Your task to perform on an android device: turn off priority inbox in the gmail app Image 0: 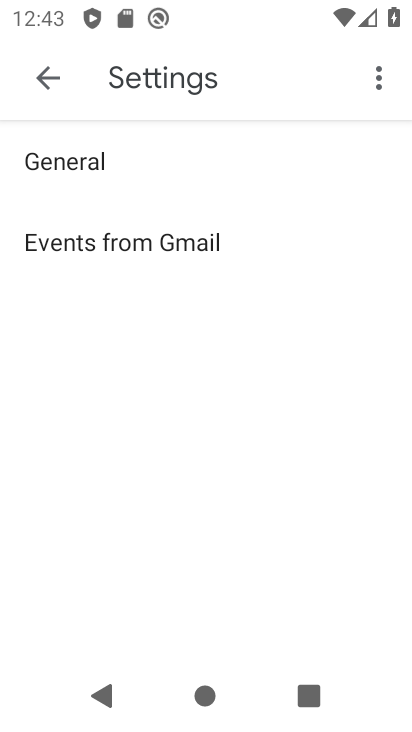
Step 0: press back button
Your task to perform on an android device: turn off priority inbox in the gmail app Image 1: 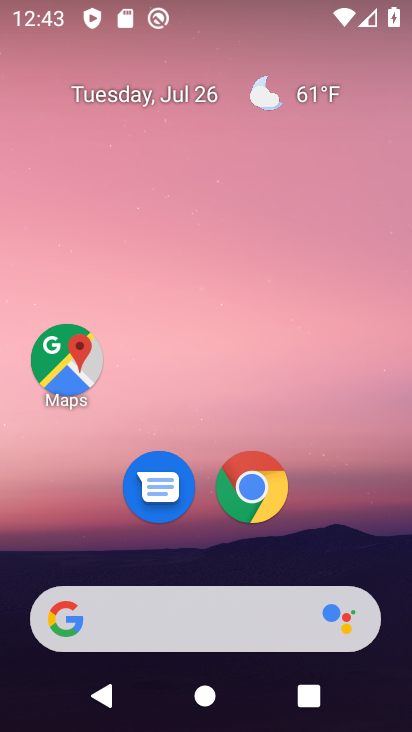
Step 1: drag from (74, 525) to (150, 32)
Your task to perform on an android device: turn off priority inbox in the gmail app Image 2: 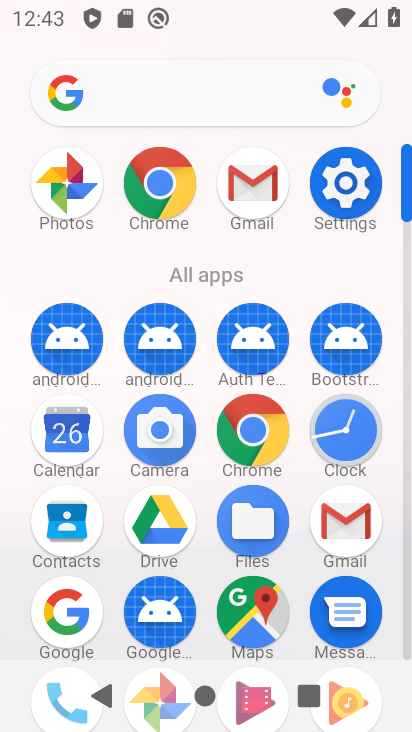
Step 2: click (270, 171)
Your task to perform on an android device: turn off priority inbox in the gmail app Image 3: 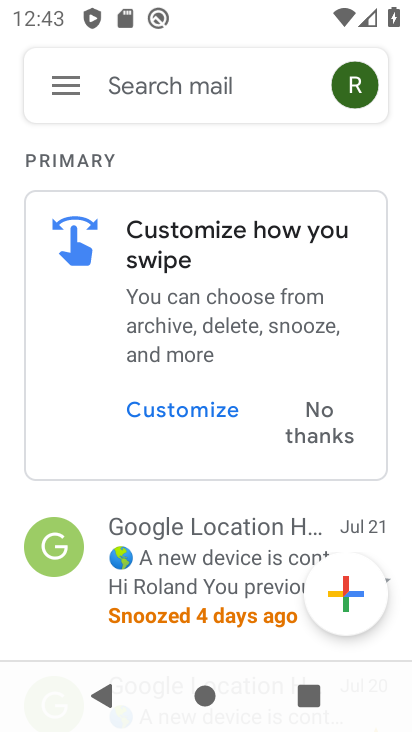
Step 3: click (77, 84)
Your task to perform on an android device: turn off priority inbox in the gmail app Image 4: 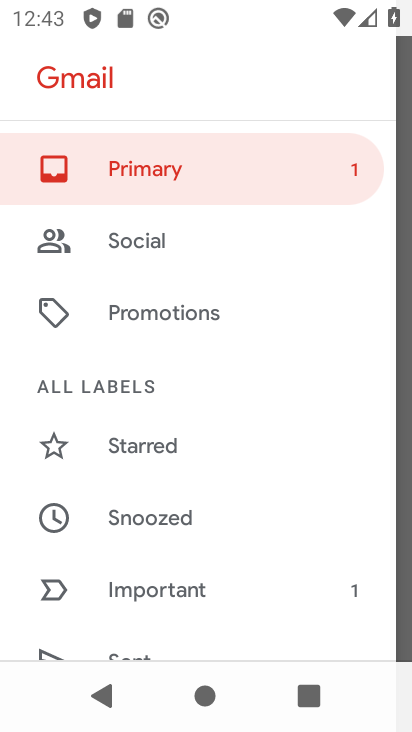
Step 4: drag from (141, 609) to (209, 2)
Your task to perform on an android device: turn off priority inbox in the gmail app Image 5: 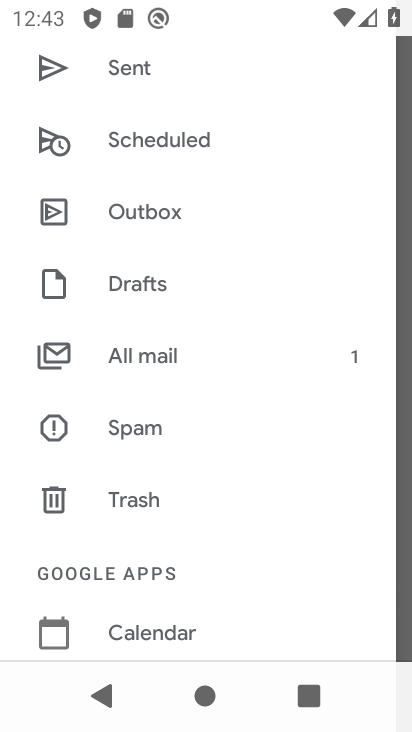
Step 5: drag from (138, 611) to (233, 68)
Your task to perform on an android device: turn off priority inbox in the gmail app Image 6: 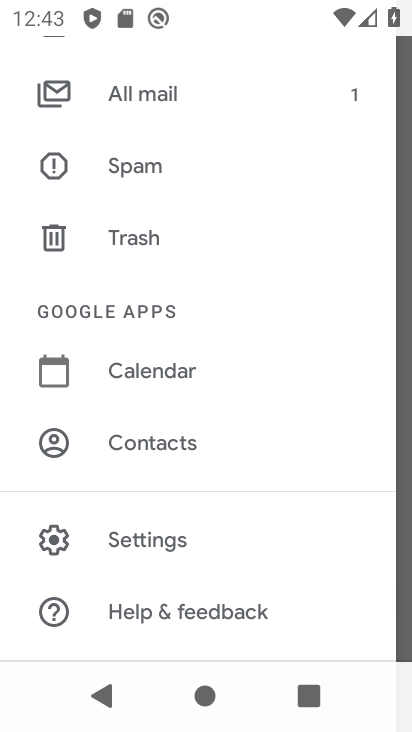
Step 6: click (183, 528)
Your task to perform on an android device: turn off priority inbox in the gmail app Image 7: 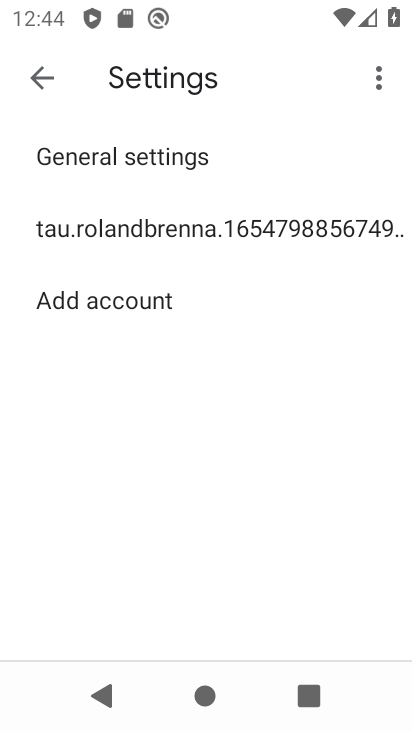
Step 7: click (143, 232)
Your task to perform on an android device: turn off priority inbox in the gmail app Image 8: 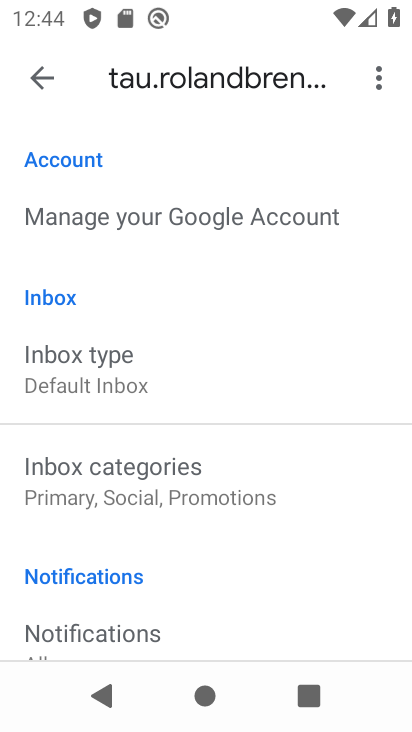
Step 8: click (101, 378)
Your task to perform on an android device: turn off priority inbox in the gmail app Image 9: 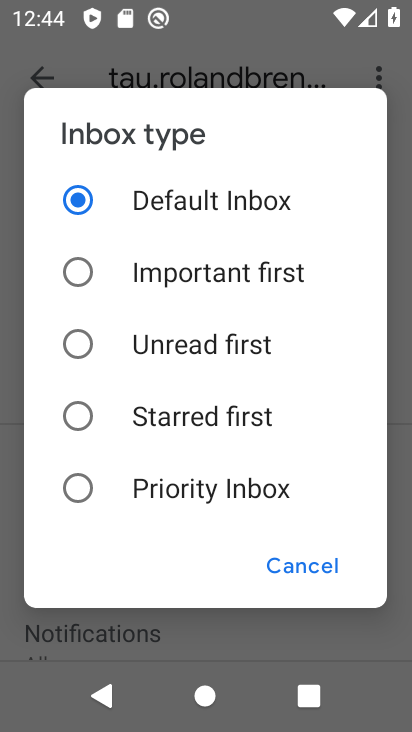
Step 9: task complete